Your task to perform on an android device: Go to network settings Image 0: 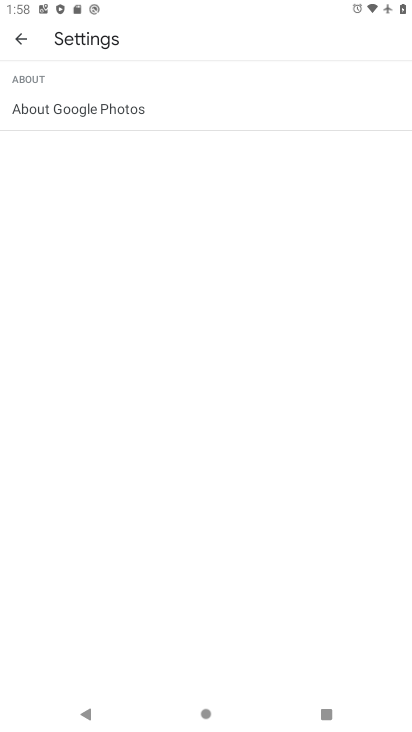
Step 0: press home button
Your task to perform on an android device: Go to network settings Image 1: 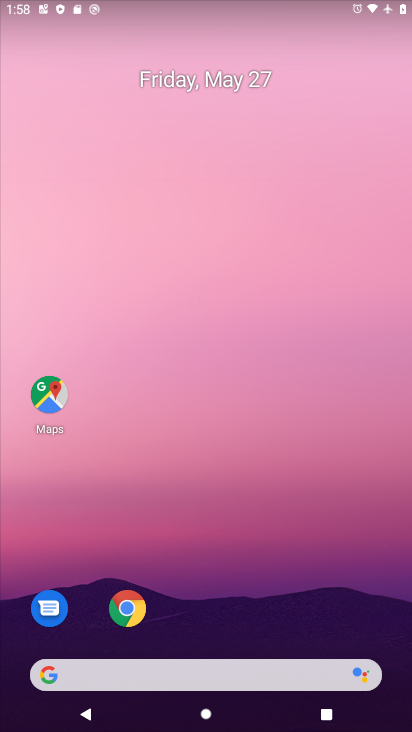
Step 1: drag from (231, 675) to (366, 164)
Your task to perform on an android device: Go to network settings Image 2: 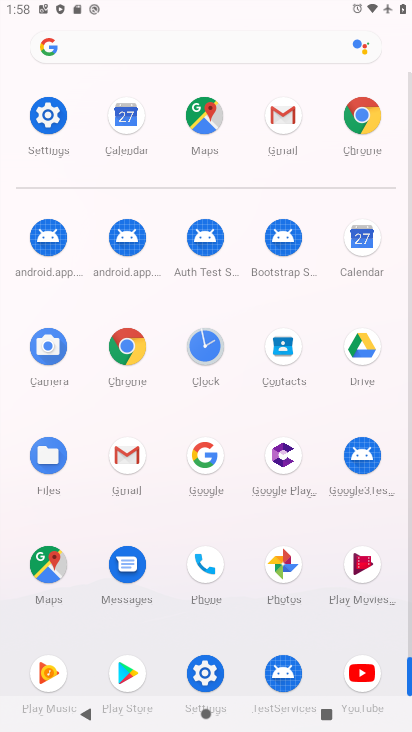
Step 2: click (48, 113)
Your task to perform on an android device: Go to network settings Image 3: 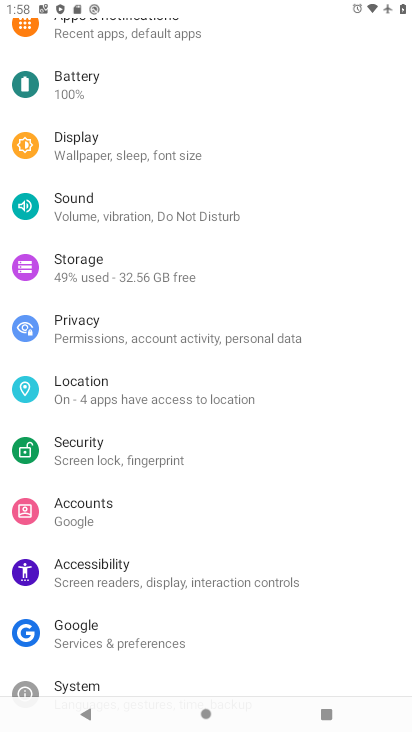
Step 3: drag from (282, 87) to (209, 522)
Your task to perform on an android device: Go to network settings Image 4: 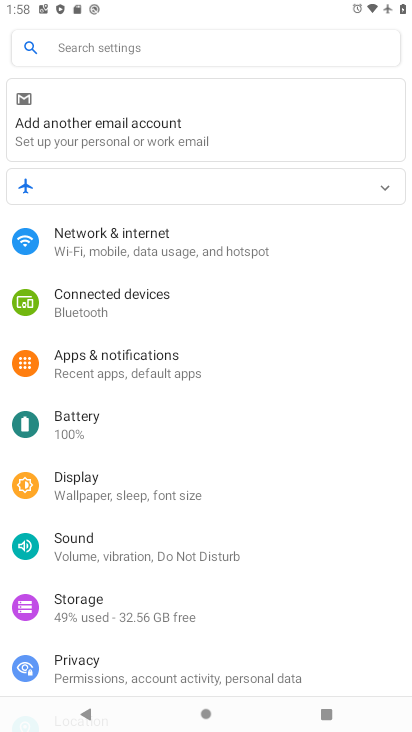
Step 4: click (161, 243)
Your task to perform on an android device: Go to network settings Image 5: 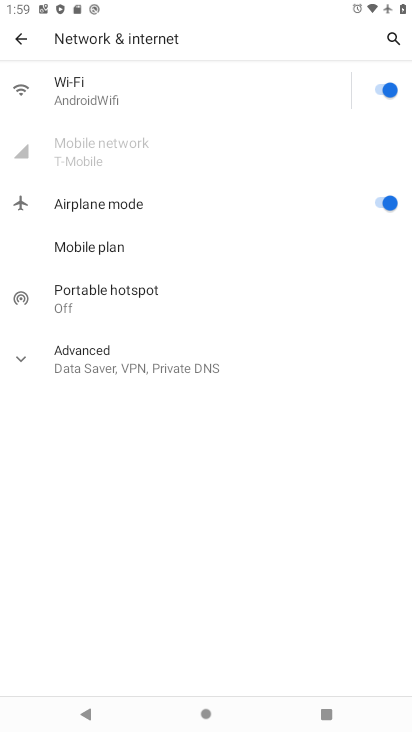
Step 5: task complete